Your task to perform on an android device: create a new album in the google photos Image 0: 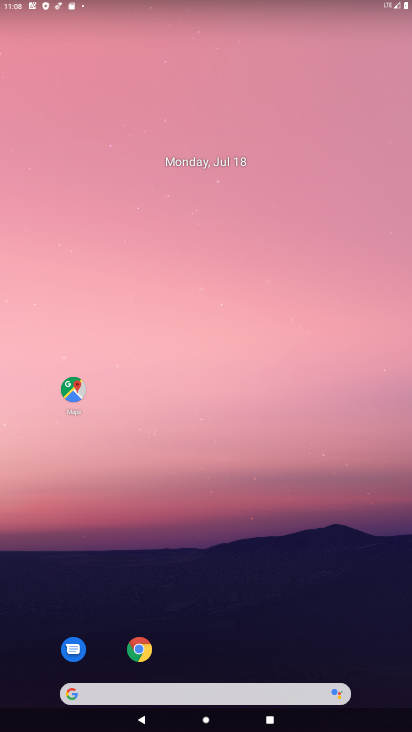
Step 0: drag from (235, 723) to (296, 230)
Your task to perform on an android device: create a new album in the google photos Image 1: 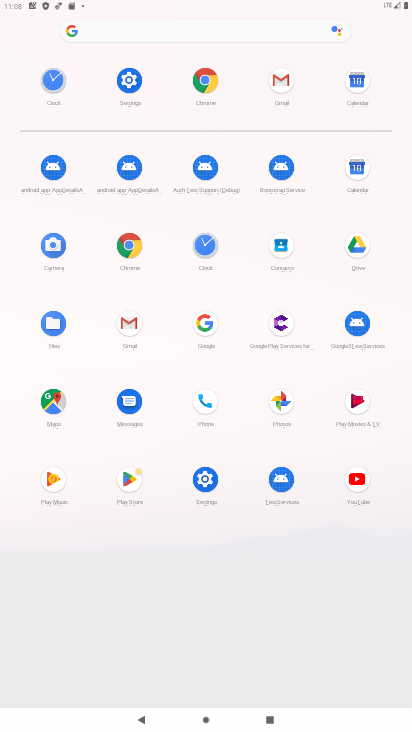
Step 1: click (285, 409)
Your task to perform on an android device: create a new album in the google photos Image 2: 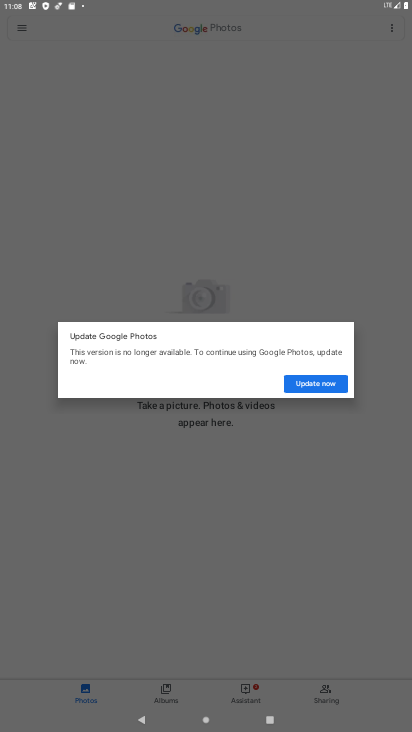
Step 2: click (328, 387)
Your task to perform on an android device: create a new album in the google photos Image 3: 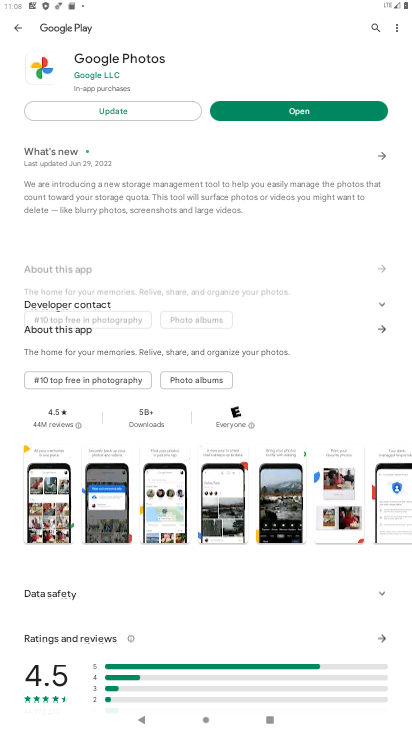
Step 3: click (144, 109)
Your task to perform on an android device: create a new album in the google photos Image 4: 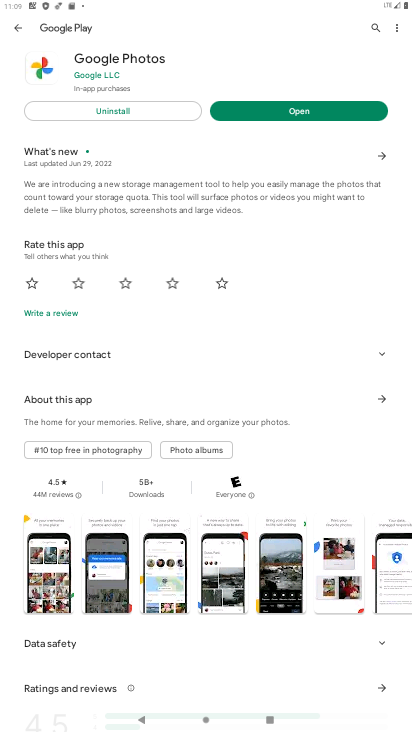
Step 4: click (335, 109)
Your task to perform on an android device: create a new album in the google photos Image 5: 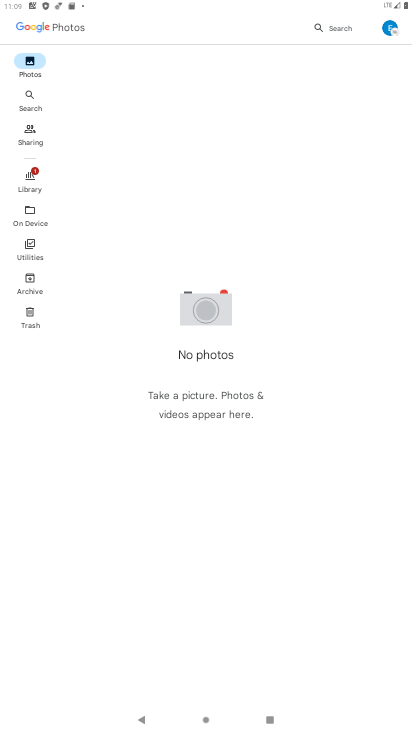
Step 5: task complete